Your task to perform on an android device: Find coffee shops on Maps Image 0: 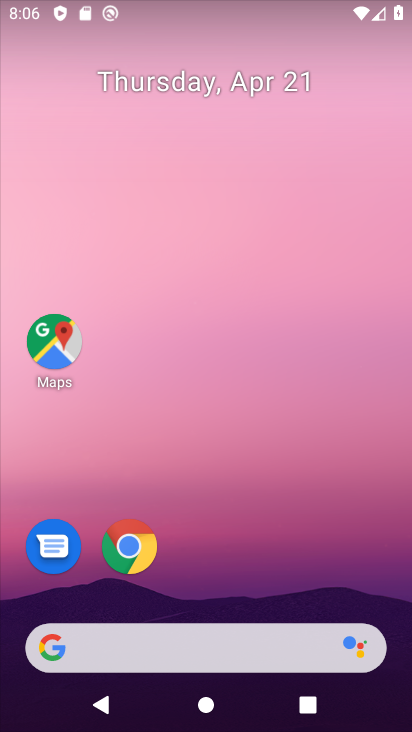
Step 0: click (72, 347)
Your task to perform on an android device: Find coffee shops on Maps Image 1: 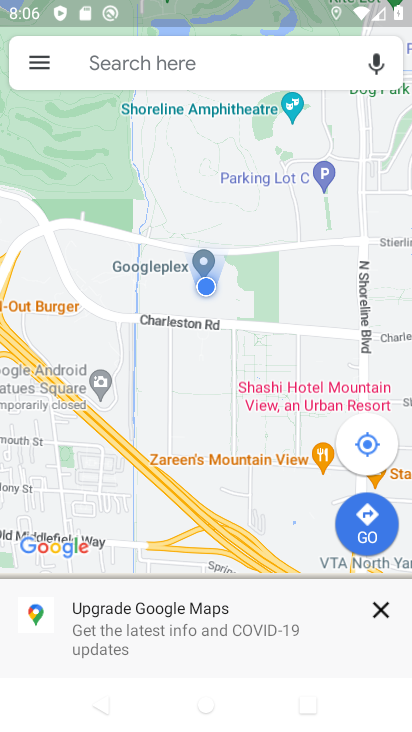
Step 1: click (230, 49)
Your task to perform on an android device: Find coffee shops on Maps Image 2: 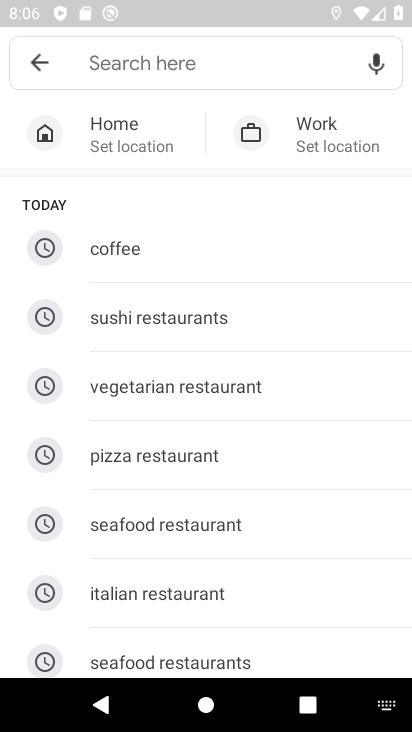
Step 2: type "coffee shops"
Your task to perform on an android device: Find coffee shops on Maps Image 3: 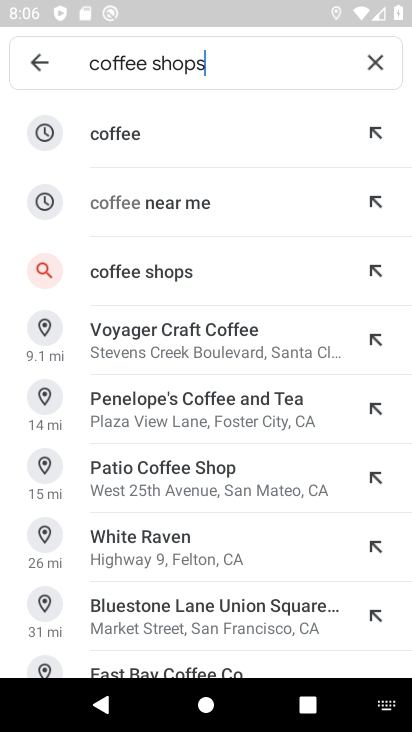
Step 3: click (173, 269)
Your task to perform on an android device: Find coffee shops on Maps Image 4: 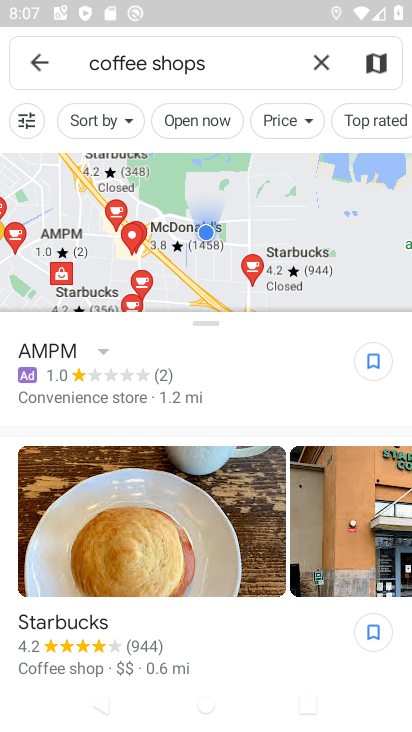
Step 4: task complete